Your task to perform on an android device: Open Reddit.com Image 0: 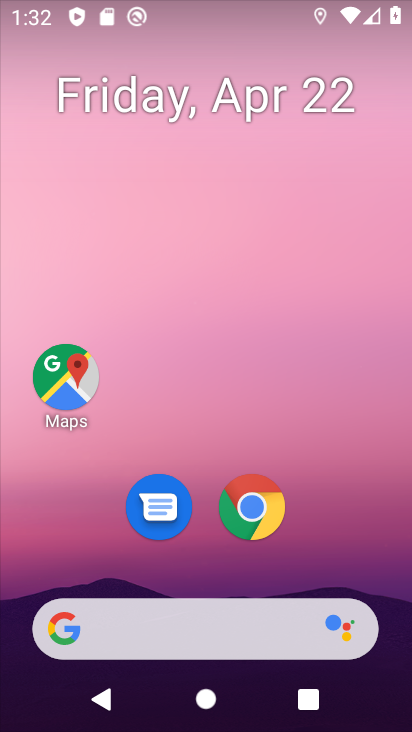
Step 0: drag from (154, 633) to (228, 162)
Your task to perform on an android device: Open Reddit.com Image 1: 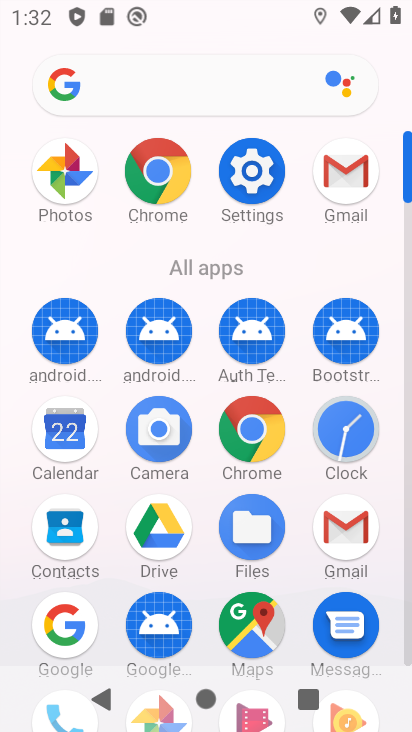
Step 1: click (157, 185)
Your task to perform on an android device: Open Reddit.com Image 2: 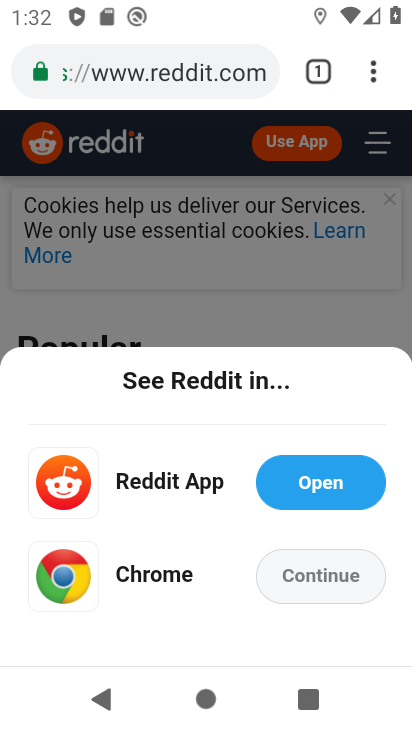
Step 2: task complete